Your task to perform on an android device: open chrome privacy settings Image 0: 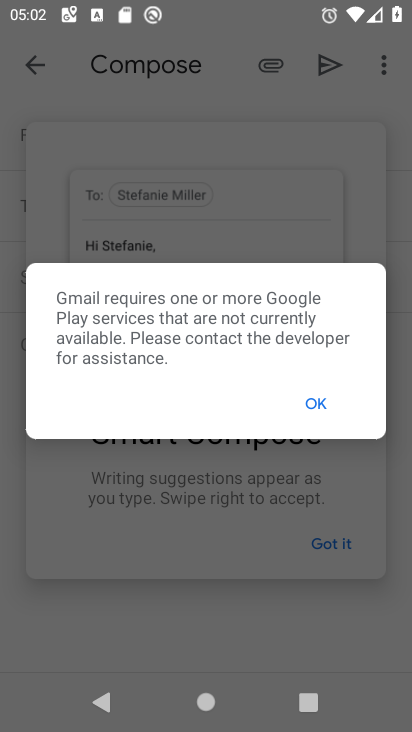
Step 0: press home button
Your task to perform on an android device: open chrome privacy settings Image 1: 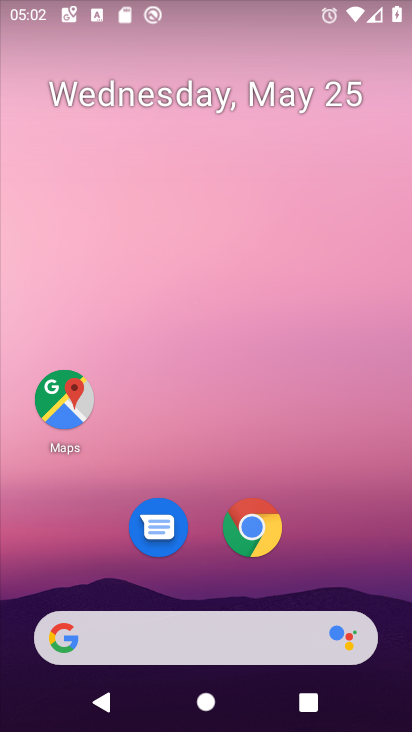
Step 1: drag from (312, 638) to (352, 33)
Your task to perform on an android device: open chrome privacy settings Image 2: 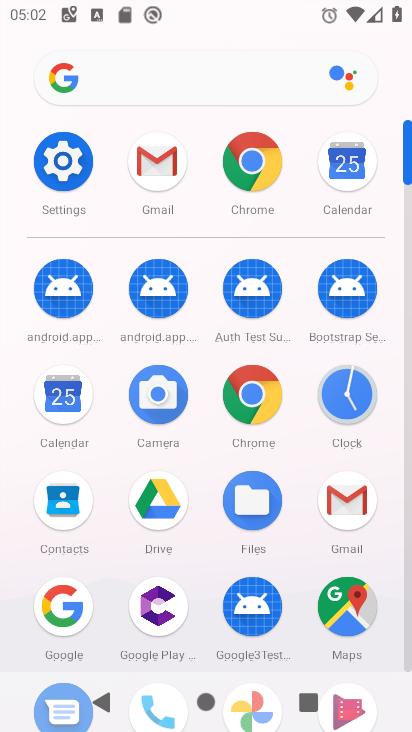
Step 2: click (71, 155)
Your task to perform on an android device: open chrome privacy settings Image 3: 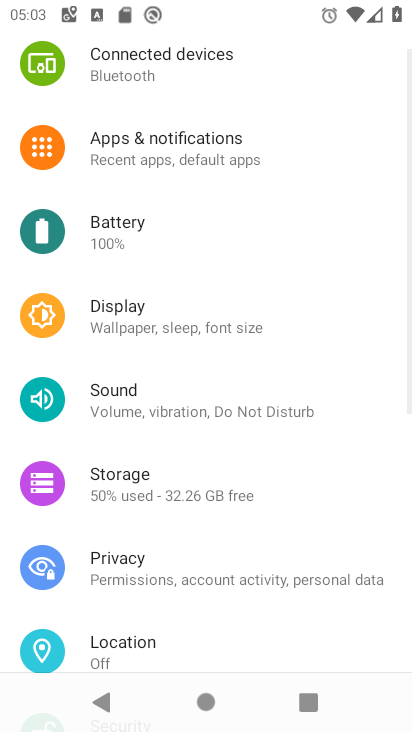
Step 3: drag from (212, 169) to (197, 679)
Your task to perform on an android device: open chrome privacy settings Image 4: 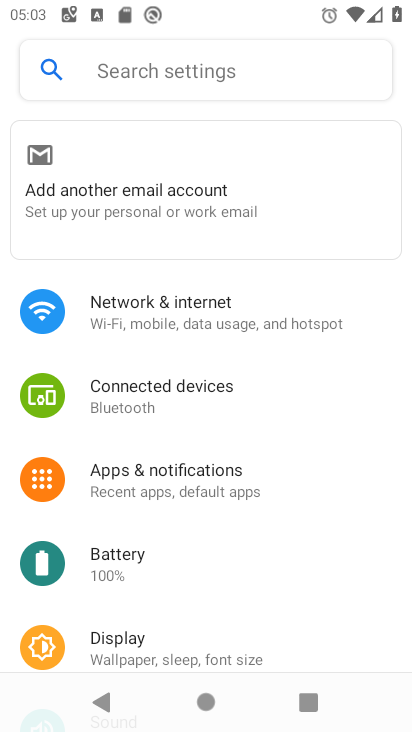
Step 4: press home button
Your task to perform on an android device: open chrome privacy settings Image 5: 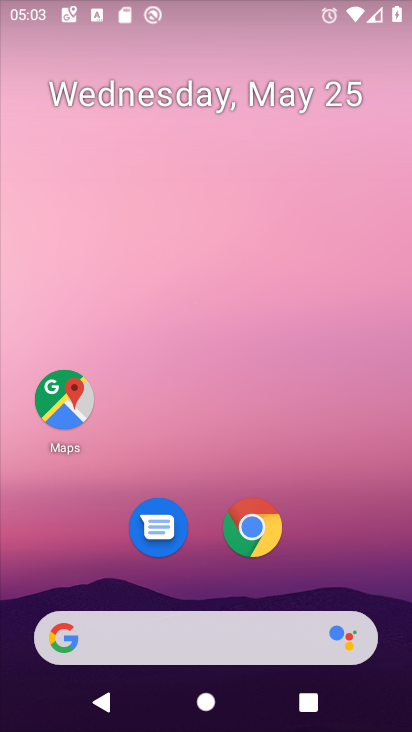
Step 5: drag from (206, 534) to (281, 29)
Your task to perform on an android device: open chrome privacy settings Image 6: 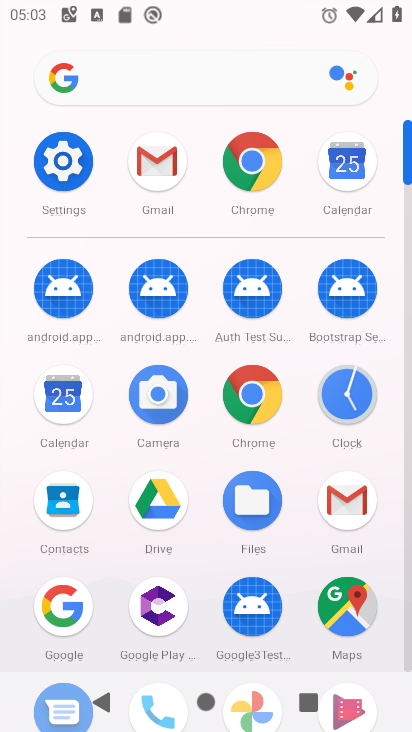
Step 6: click (263, 413)
Your task to perform on an android device: open chrome privacy settings Image 7: 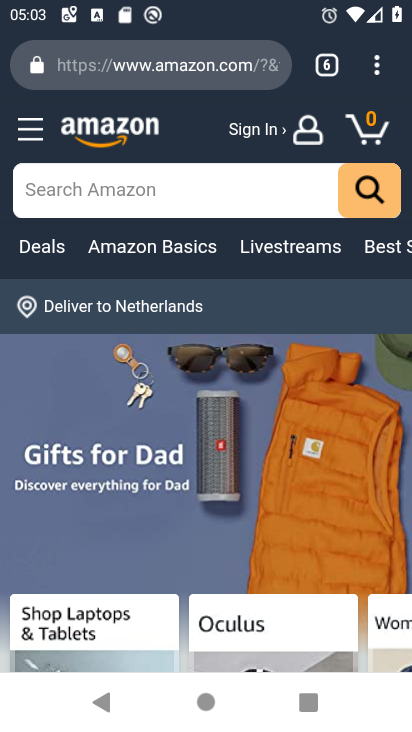
Step 7: click (379, 70)
Your task to perform on an android device: open chrome privacy settings Image 8: 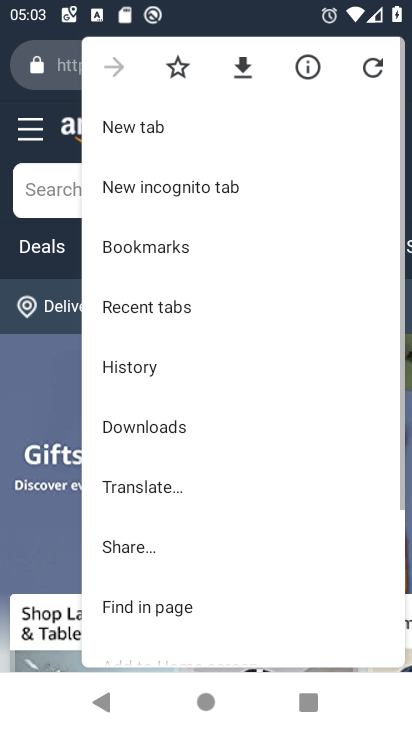
Step 8: drag from (256, 605) to (254, 64)
Your task to perform on an android device: open chrome privacy settings Image 9: 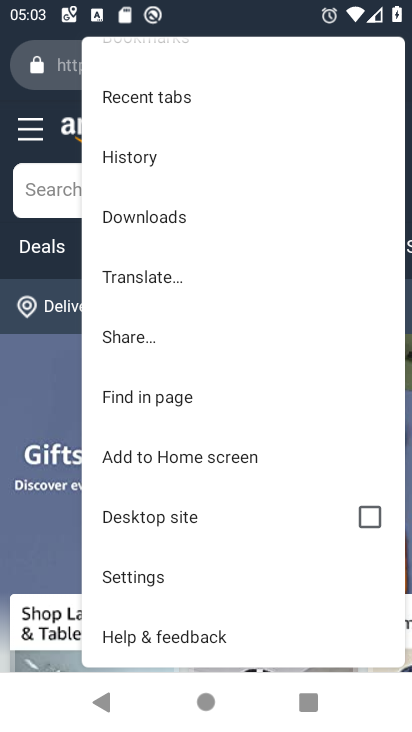
Step 9: click (187, 578)
Your task to perform on an android device: open chrome privacy settings Image 10: 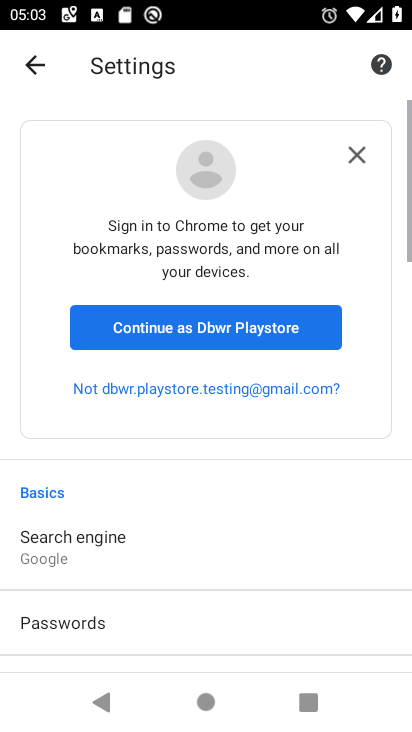
Step 10: drag from (185, 626) to (232, 55)
Your task to perform on an android device: open chrome privacy settings Image 11: 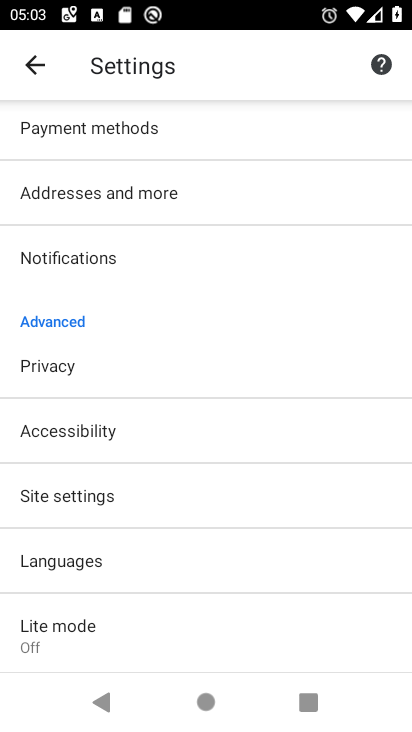
Step 11: click (125, 377)
Your task to perform on an android device: open chrome privacy settings Image 12: 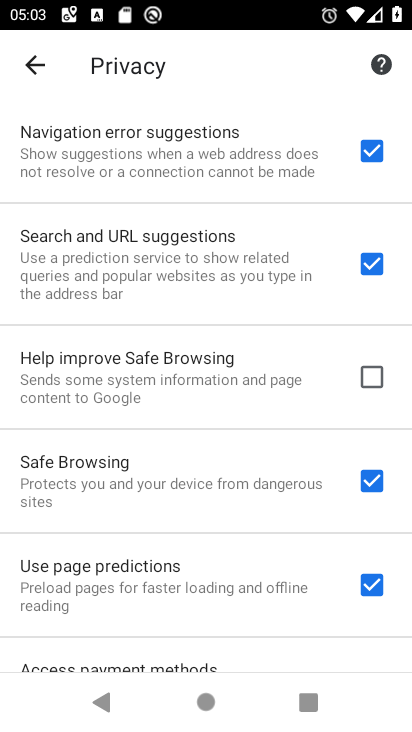
Step 12: drag from (190, 593) to (224, 9)
Your task to perform on an android device: open chrome privacy settings Image 13: 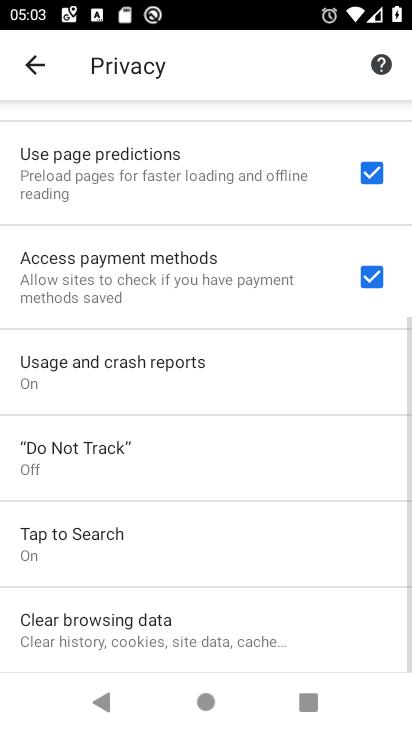
Step 13: click (174, 638)
Your task to perform on an android device: open chrome privacy settings Image 14: 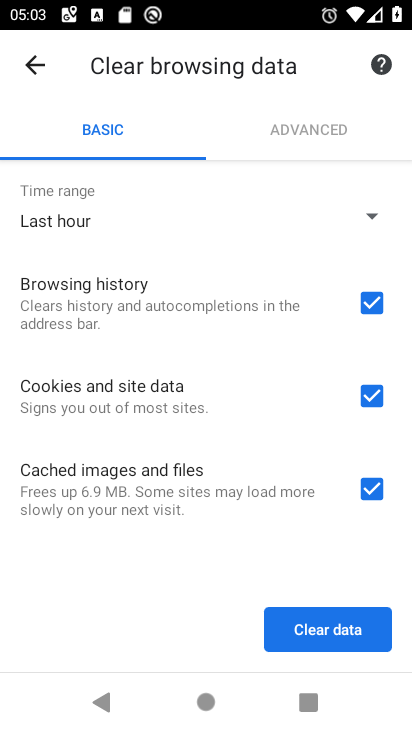
Step 14: task complete